Your task to perform on an android device: Open the web browser Image 0: 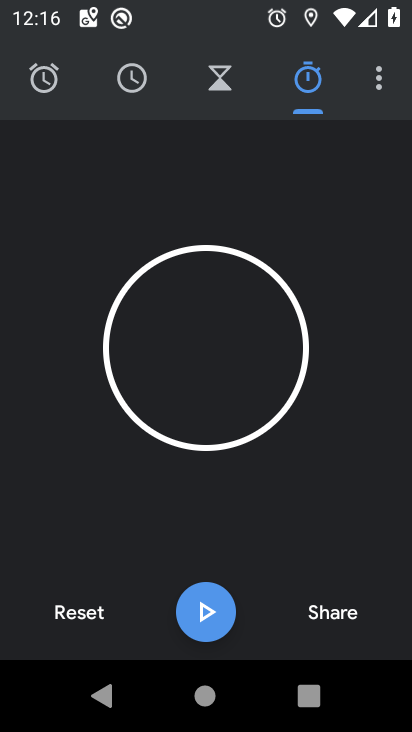
Step 0: press home button
Your task to perform on an android device: Open the web browser Image 1: 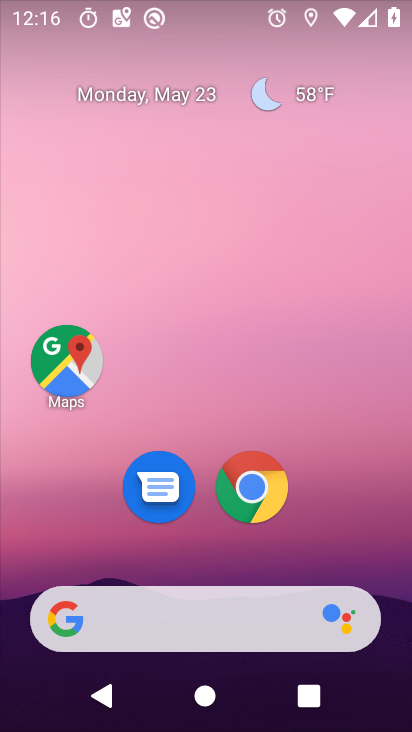
Step 1: drag from (347, 480) to (320, 126)
Your task to perform on an android device: Open the web browser Image 2: 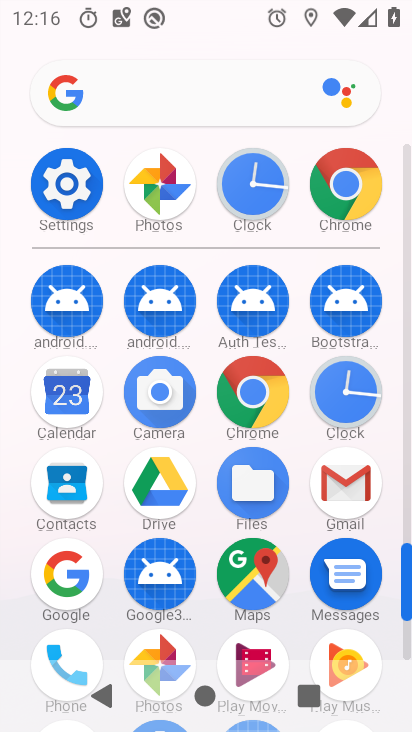
Step 2: click (256, 404)
Your task to perform on an android device: Open the web browser Image 3: 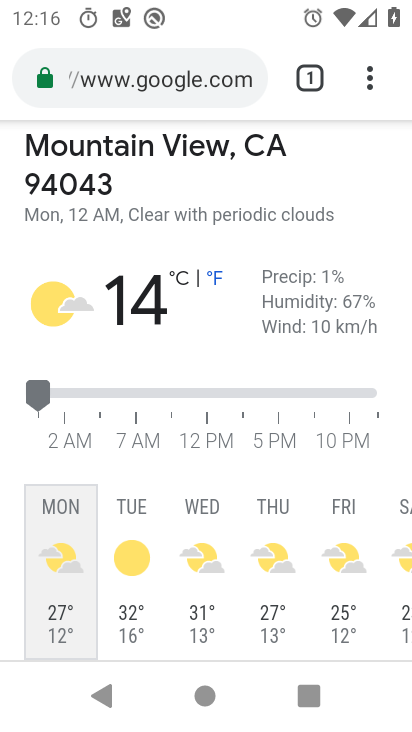
Step 3: task complete